Your task to perform on an android device: Open Google Maps and go to "Timeline" Image 0: 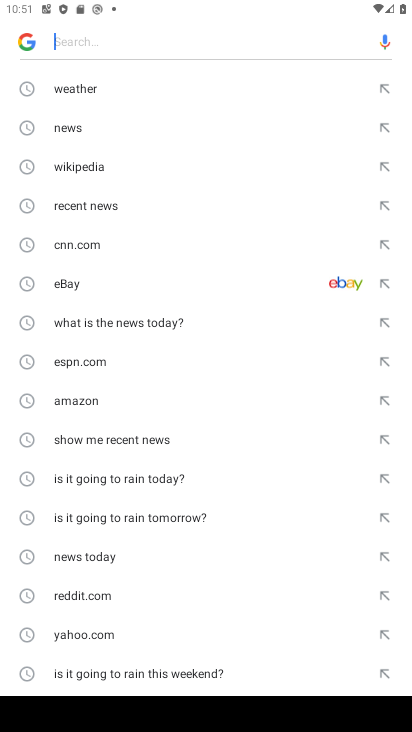
Step 0: press home button
Your task to perform on an android device: Open Google Maps and go to "Timeline" Image 1: 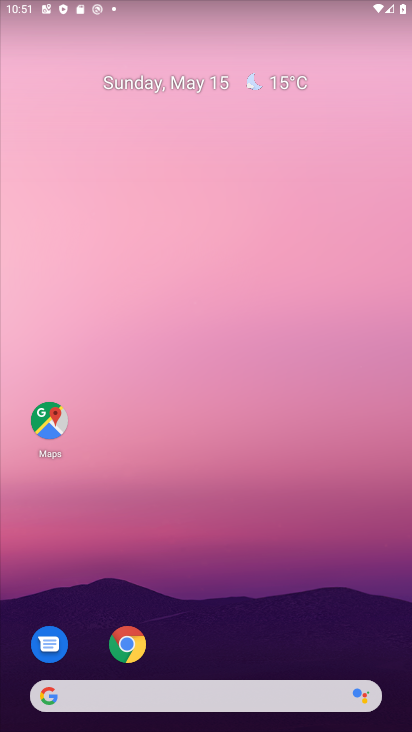
Step 1: drag from (197, 658) to (274, 249)
Your task to perform on an android device: Open Google Maps and go to "Timeline" Image 2: 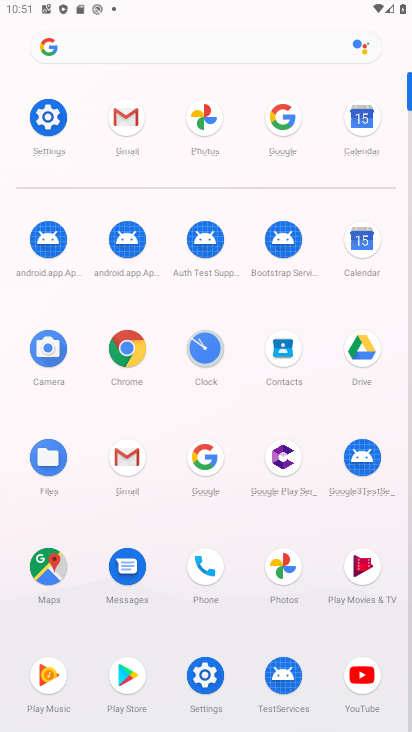
Step 2: click (32, 566)
Your task to perform on an android device: Open Google Maps and go to "Timeline" Image 3: 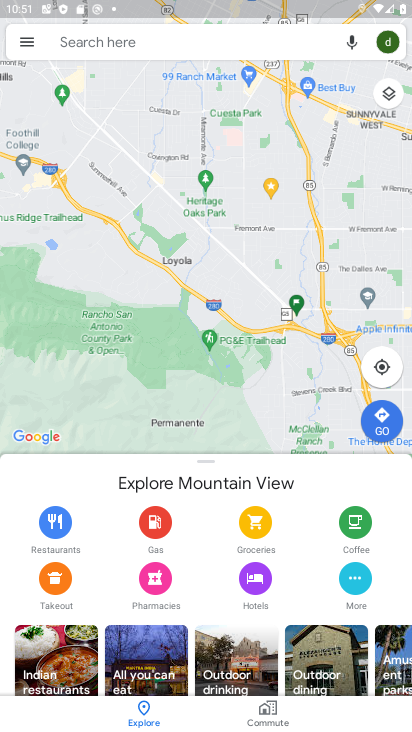
Step 3: click (19, 42)
Your task to perform on an android device: Open Google Maps and go to "Timeline" Image 4: 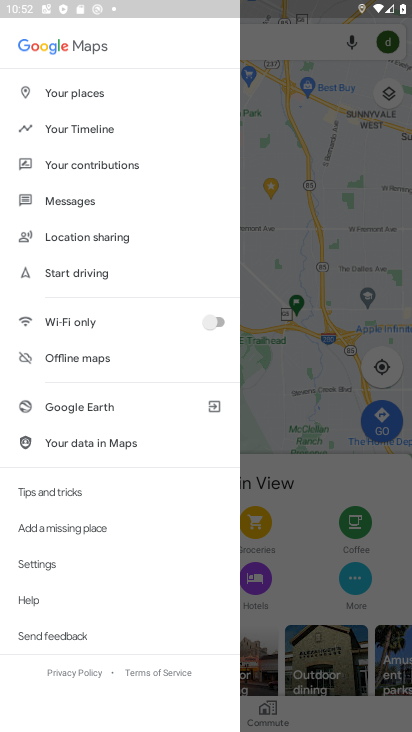
Step 4: click (108, 119)
Your task to perform on an android device: Open Google Maps and go to "Timeline" Image 5: 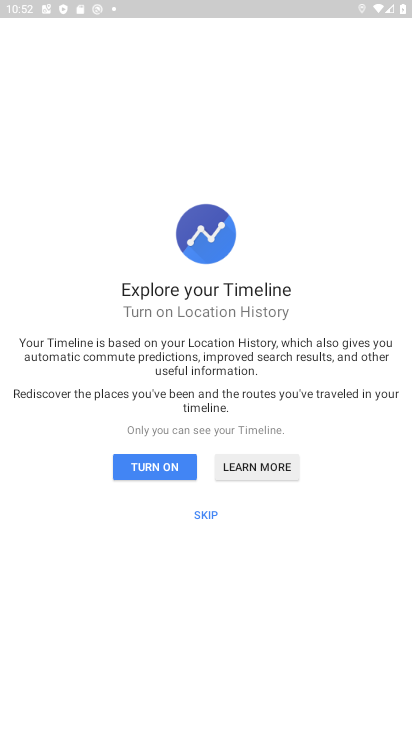
Step 5: click (233, 466)
Your task to perform on an android device: Open Google Maps and go to "Timeline" Image 6: 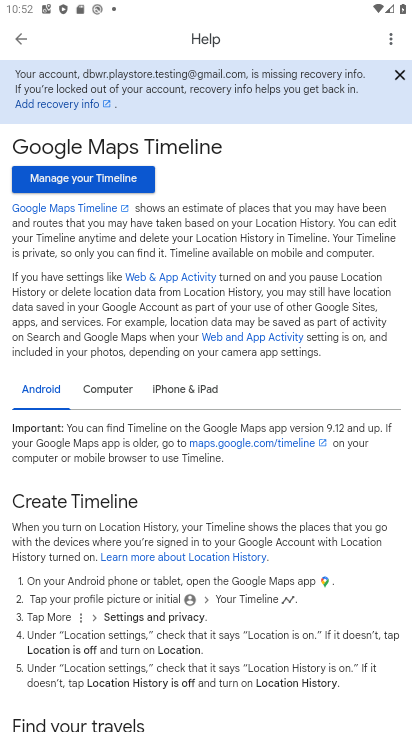
Step 6: task complete